Your task to perform on an android device: What's on the menu at Denny's? Image 0: 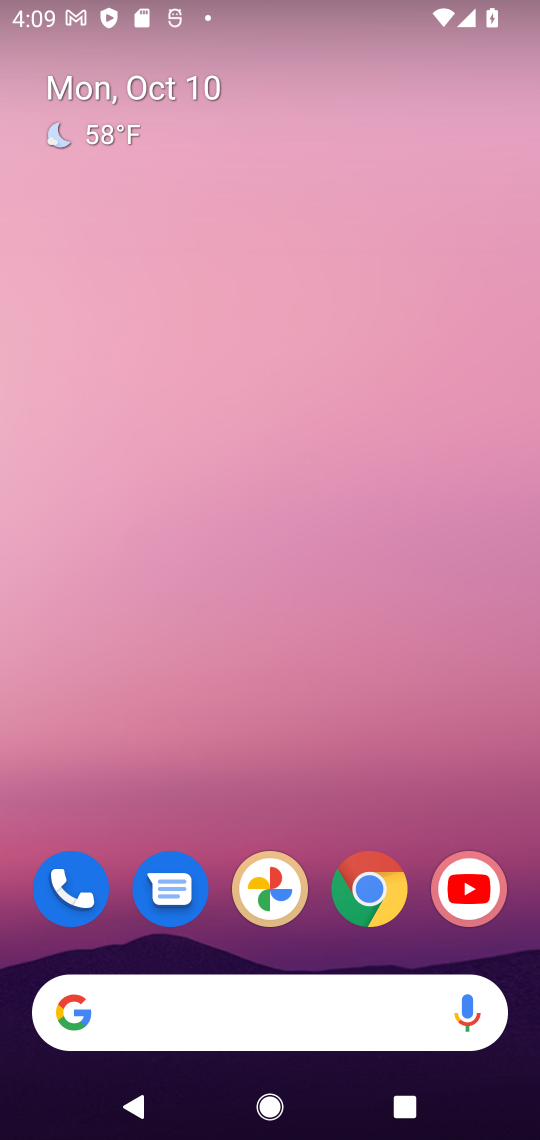
Step 0: click (368, 882)
Your task to perform on an android device: What's on the menu at Denny's? Image 1: 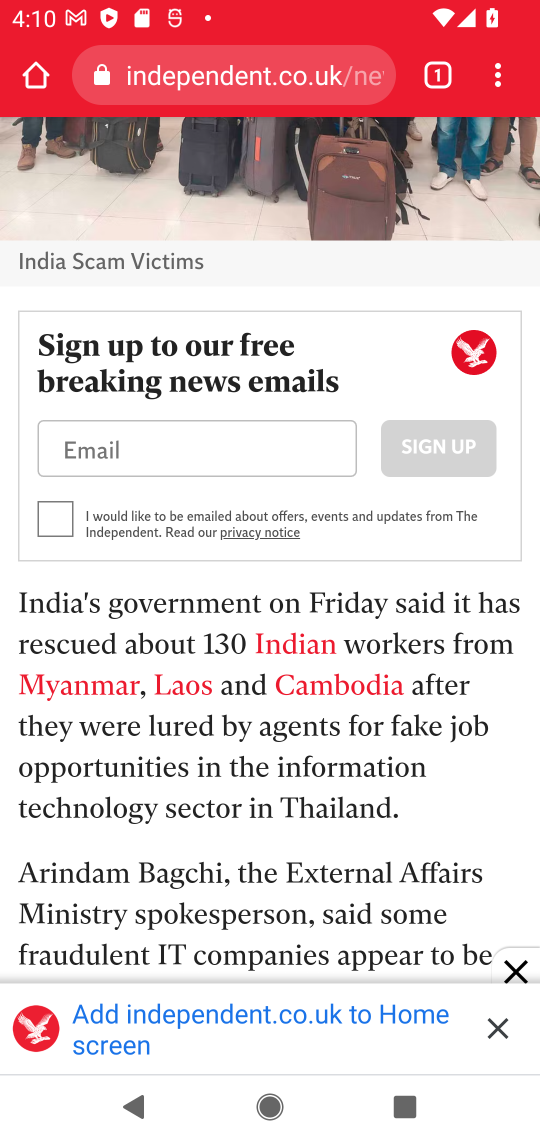
Step 1: click (260, 53)
Your task to perform on an android device: What's on the menu at Denny's? Image 2: 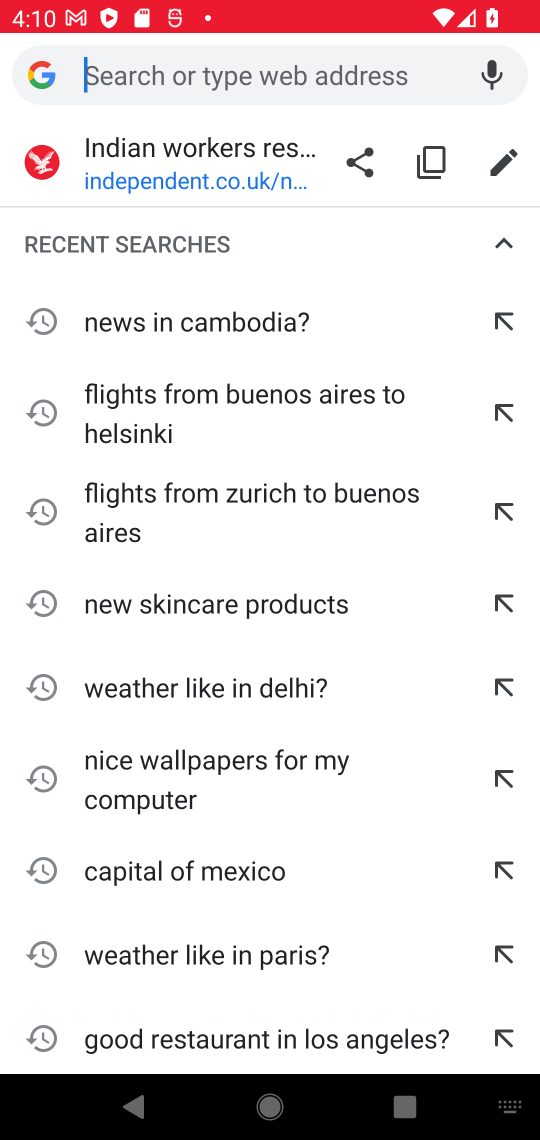
Step 2: type "menu at Denny's?"
Your task to perform on an android device: What's on the menu at Denny's? Image 3: 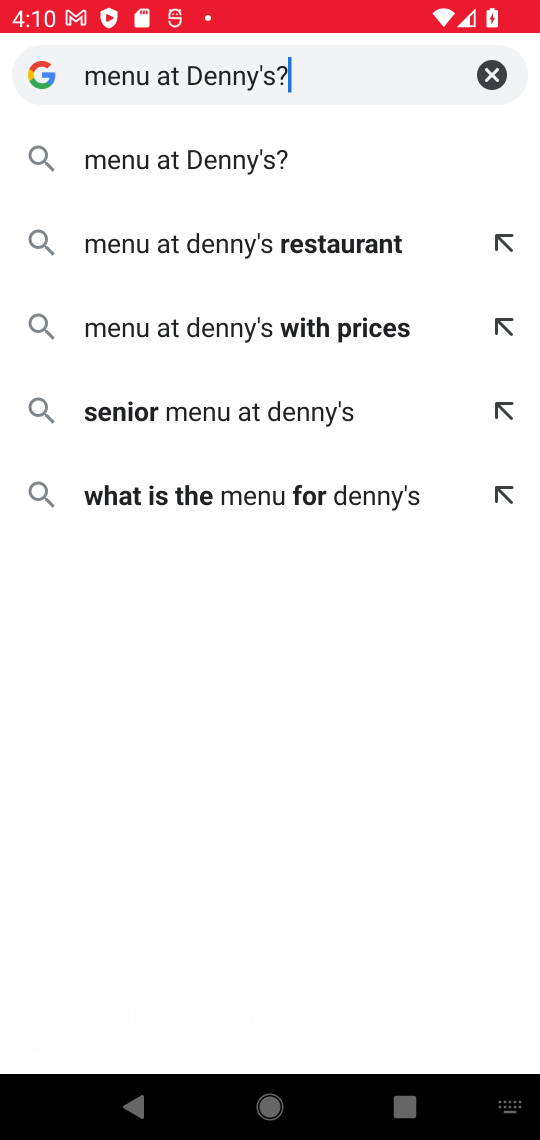
Step 3: click (101, 156)
Your task to perform on an android device: What's on the menu at Denny's? Image 4: 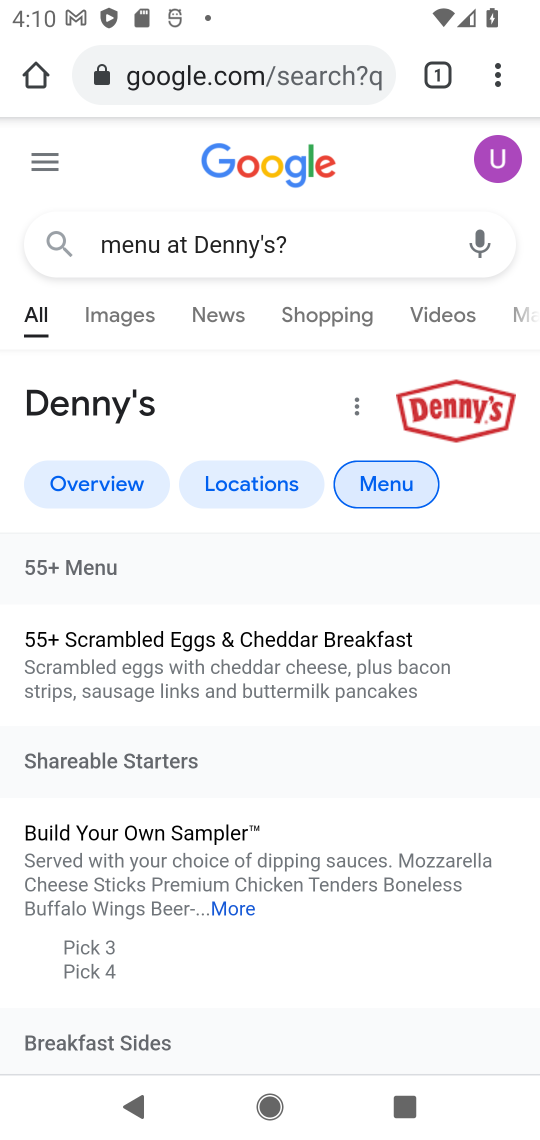
Step 4: drag from (343, 718) to (347, 490)
Your task to perform on an android device: What's on the menu at Denny's? Image 5: 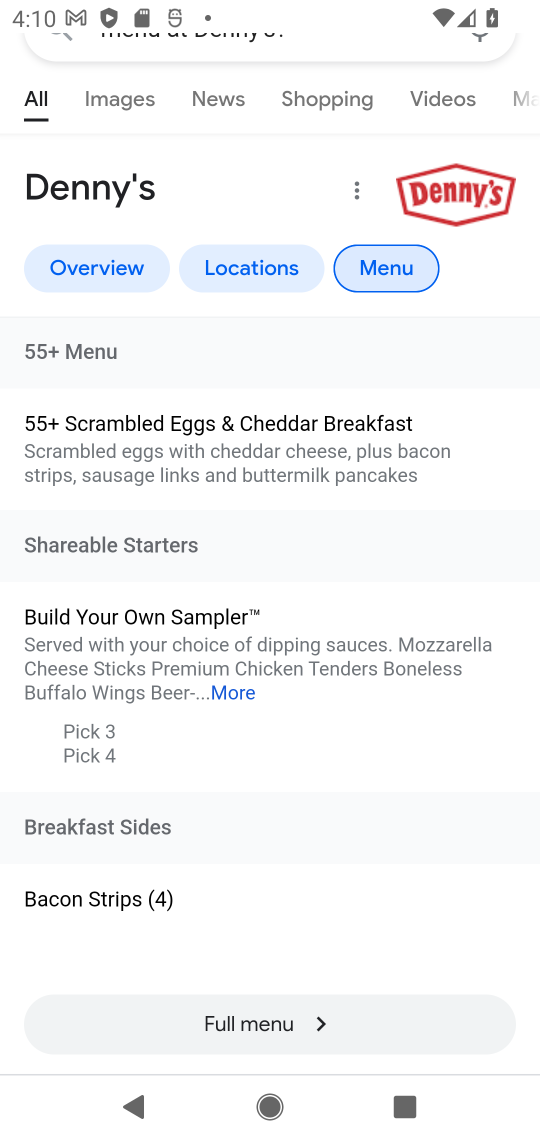
Step 5: click (369, 268)
Your task to perform on an android device: What's on the menu at Denny's? Image 6: 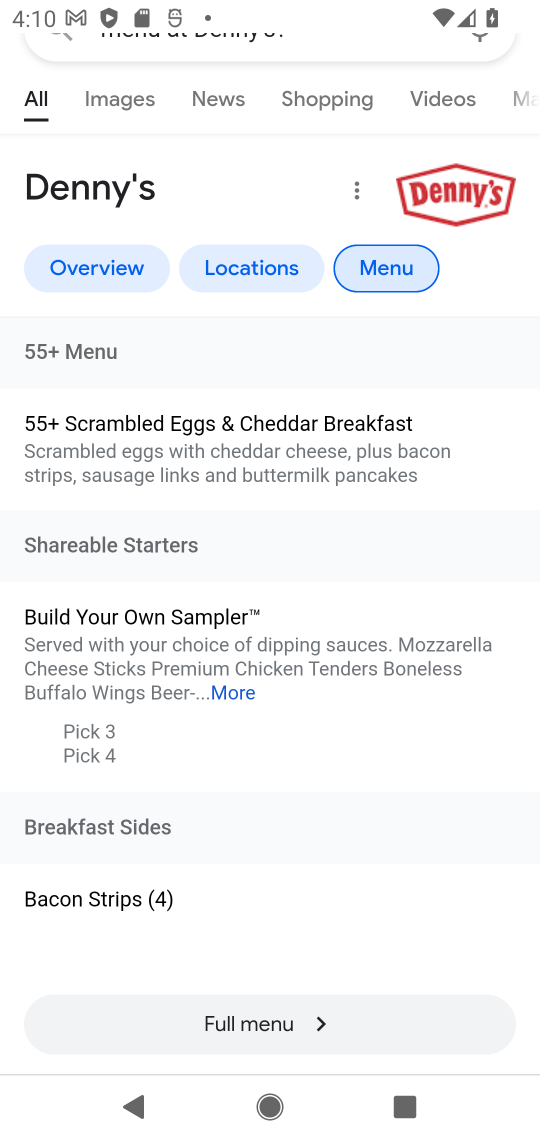
Step 6: click (384, 272)
Your task to perform on an android device: What's on the menu at Denny's? Image 7: 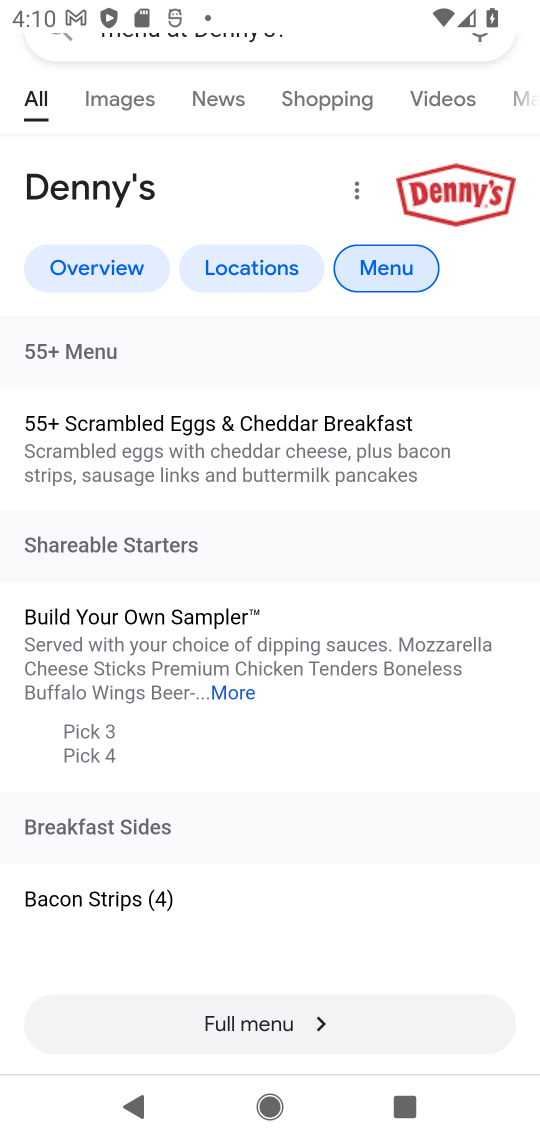
Step 7: drag from (312, 369) to (309, 529)
Your task to perform on an android device: What's on the menu at Denny's? Image 8: 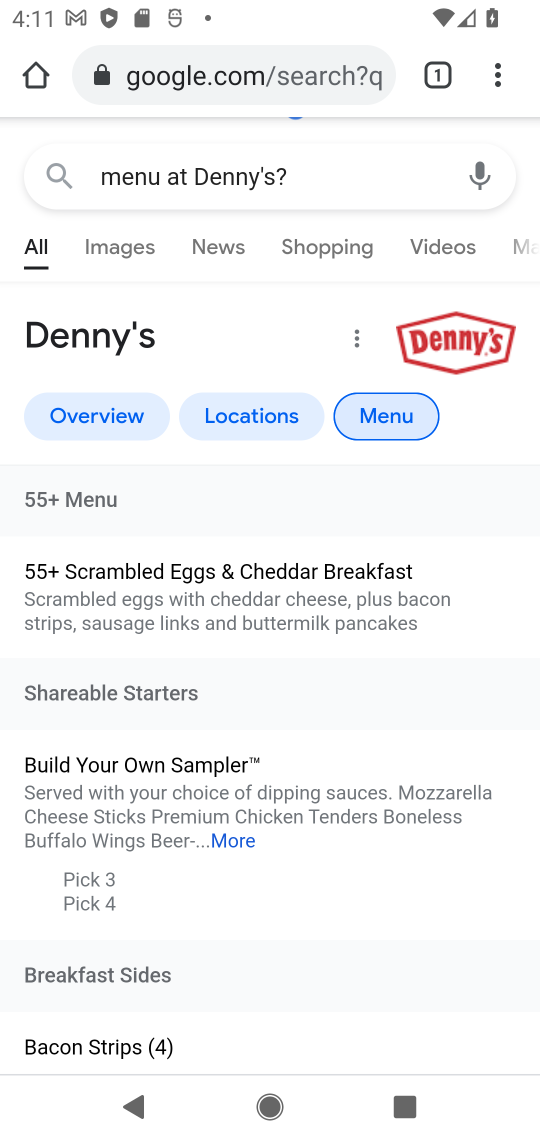
Step 8: click (62, 502)
Your task to perform on an android device: What's on the menu at Denny's? Image 9: 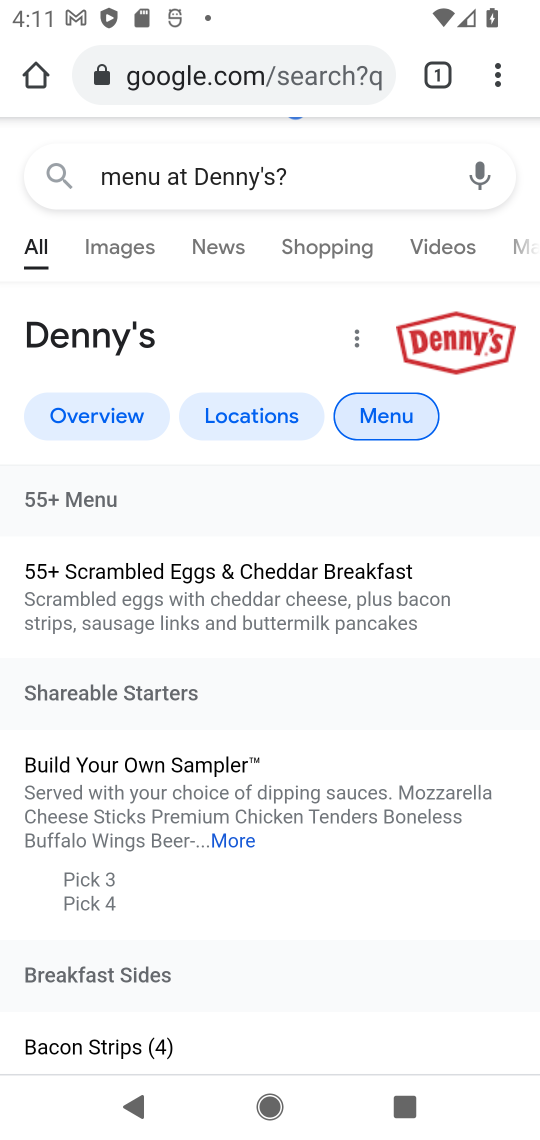
Step 9: click (27, 503)
Your task to perform on an android device: What's on the menu at Denny's? Image 10: 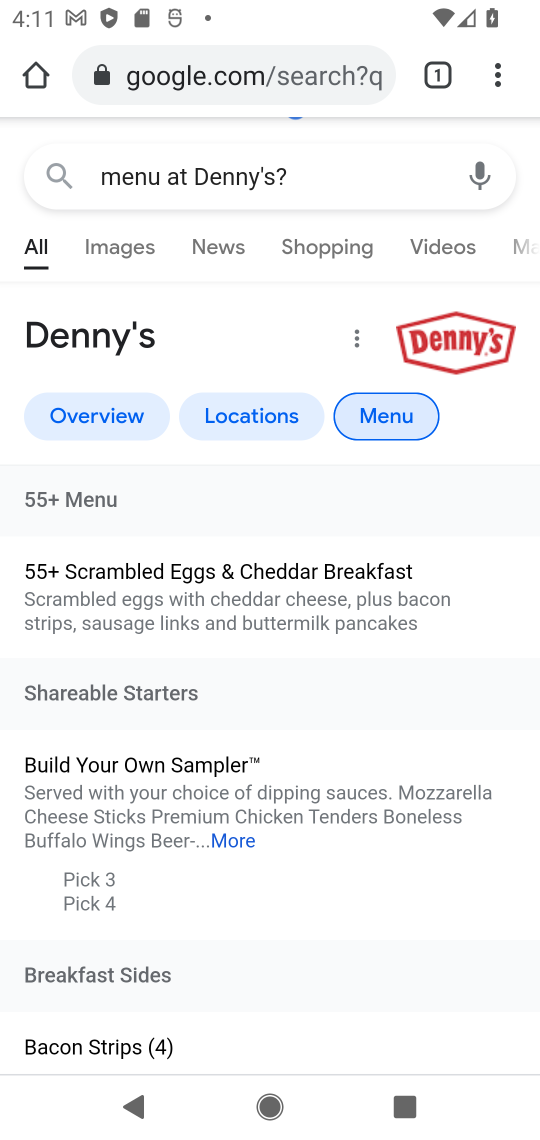
Step 10: click (387, 413)
Your task to perform on an android device: What's on the menu at Denny's? Image 11: 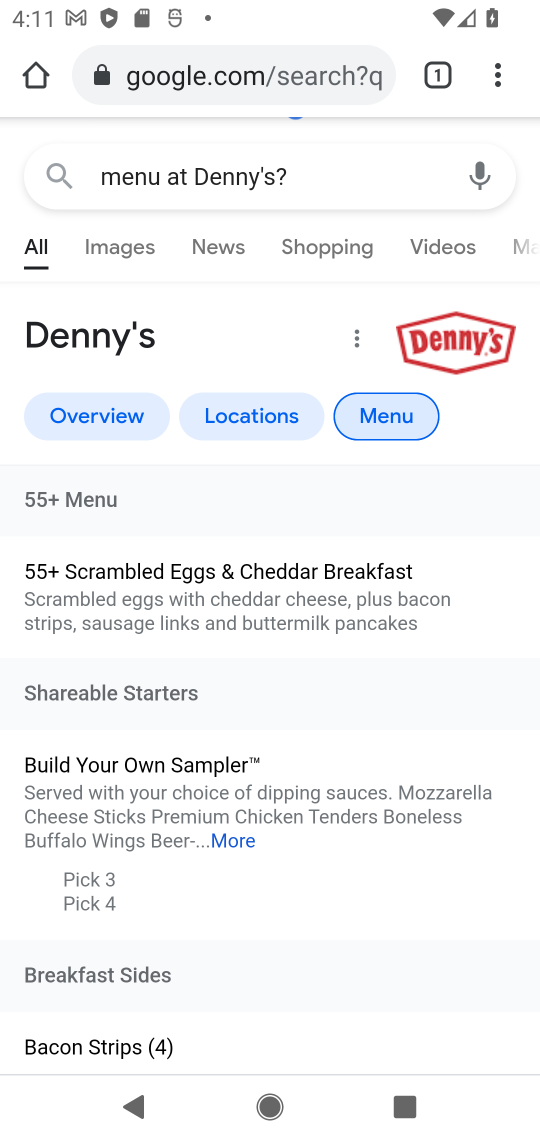
Step 11: drag from (321, 899) to (252, 281)
Your task to perform on an android device: What's on the menu at Denny's? Image 12: 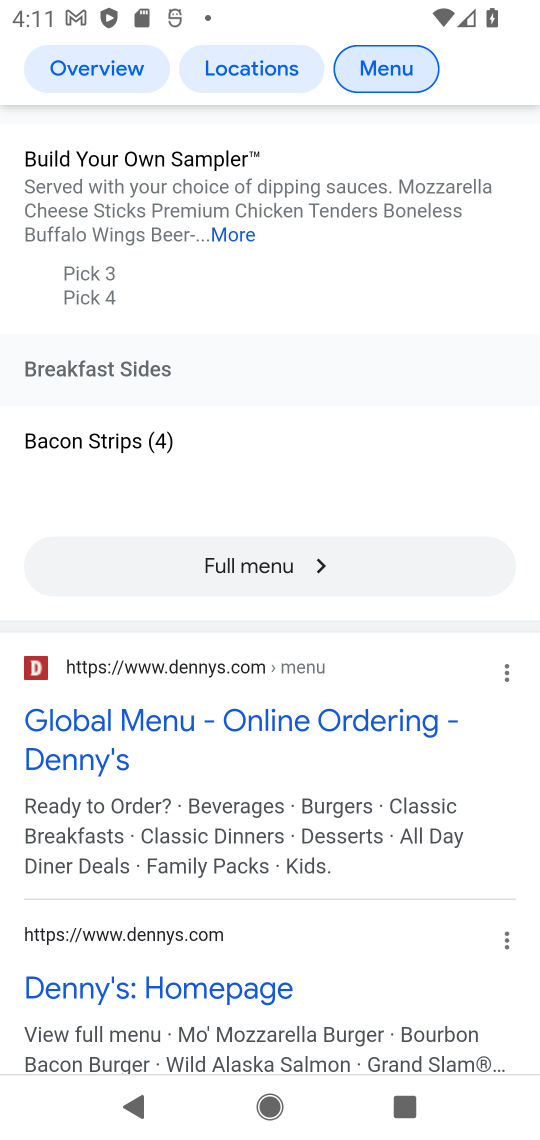
Step 12: click (105, 1001)
Your task to perform on an android device: What's on the menu at Denny's? Image 13: 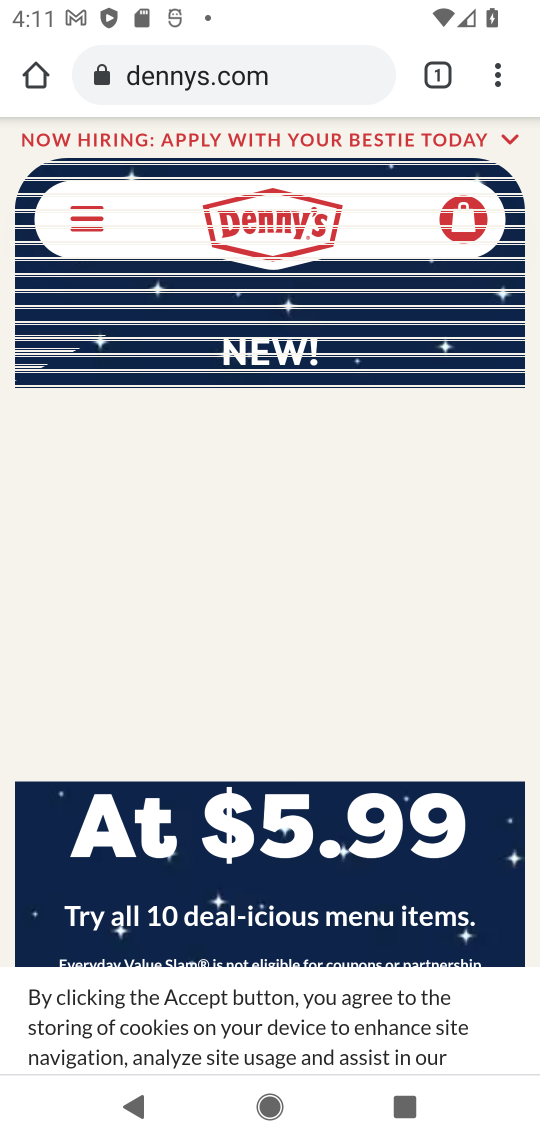
Step 13: drag from (376, 869) to (287, 297)
Your task to perform on an android device: What's on the menu at Denny's? Image 14: 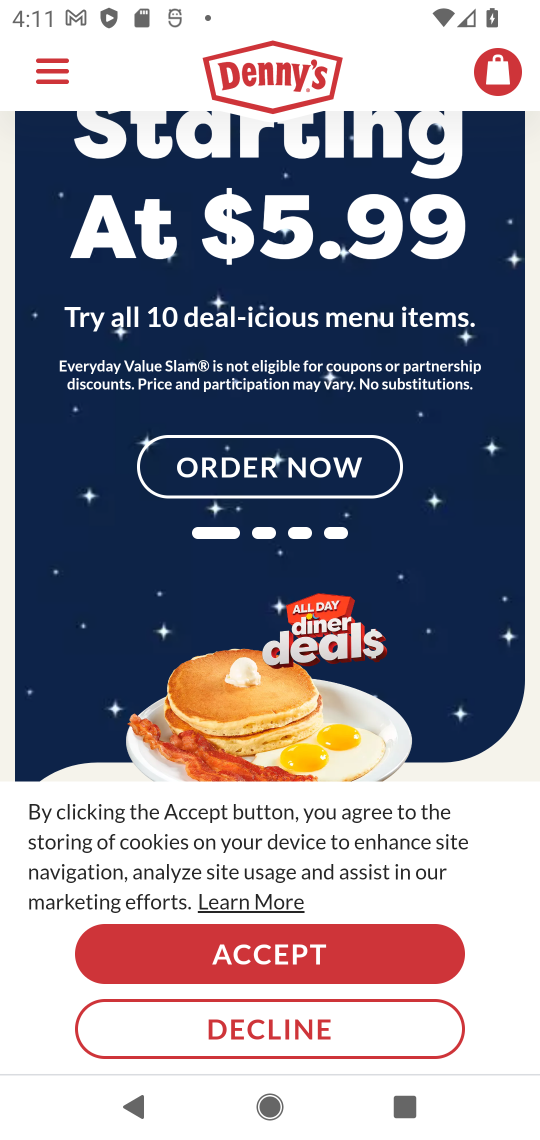
Step 14: click (272, 961)
Your task to perform on an android device: What's on the menu at Denny's? Image 15: 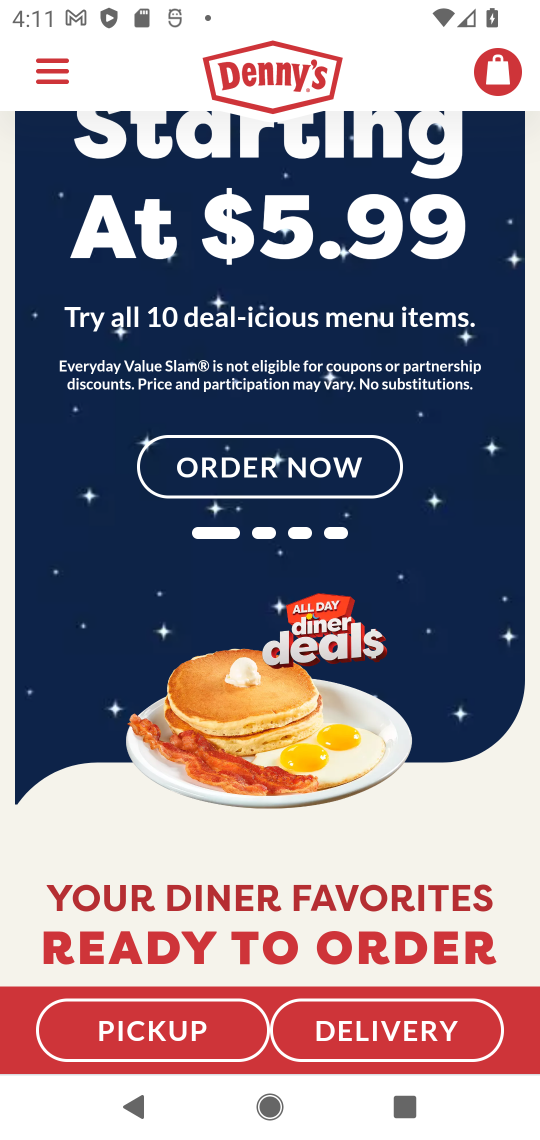
Step 15: drag from (398, 918) to (297, 162)
Your task to perform on an android device: What's on the menu at Denny's? Image 16: 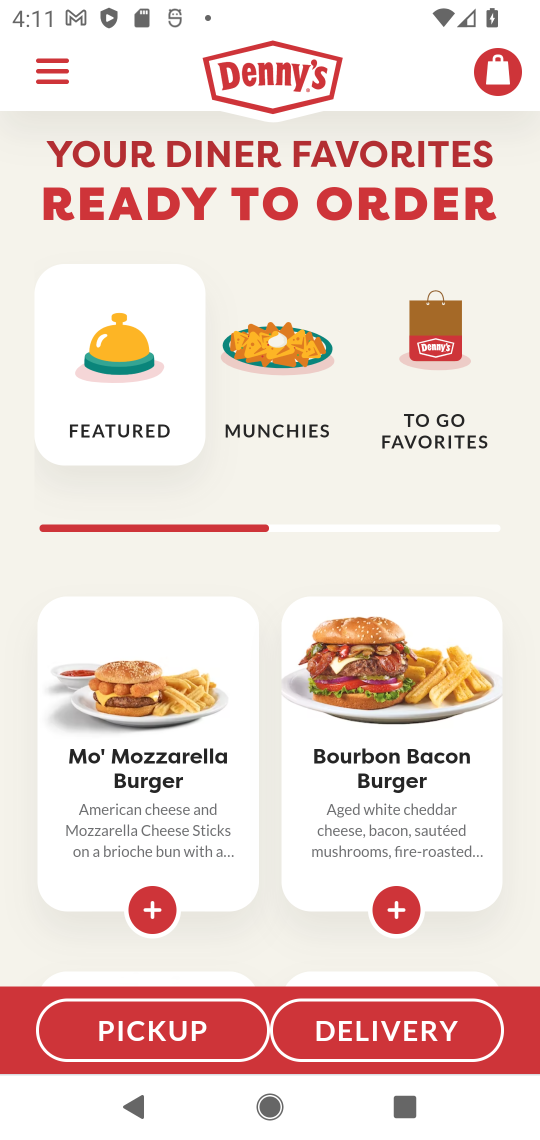
Step 16: drag from (276, 939) to (303, 170)
Your task to perform on an android device: What's on the menu at Denny's? Image 17: 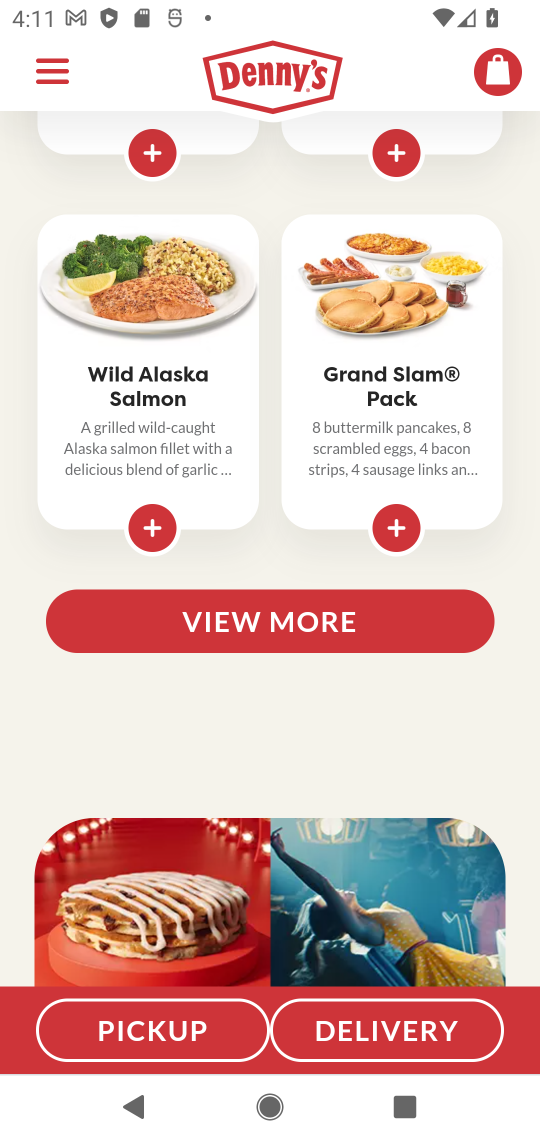
Step 17: click (253, 624)
Your task to perform on an android device: What's on the menu at Denny's? Image 18: 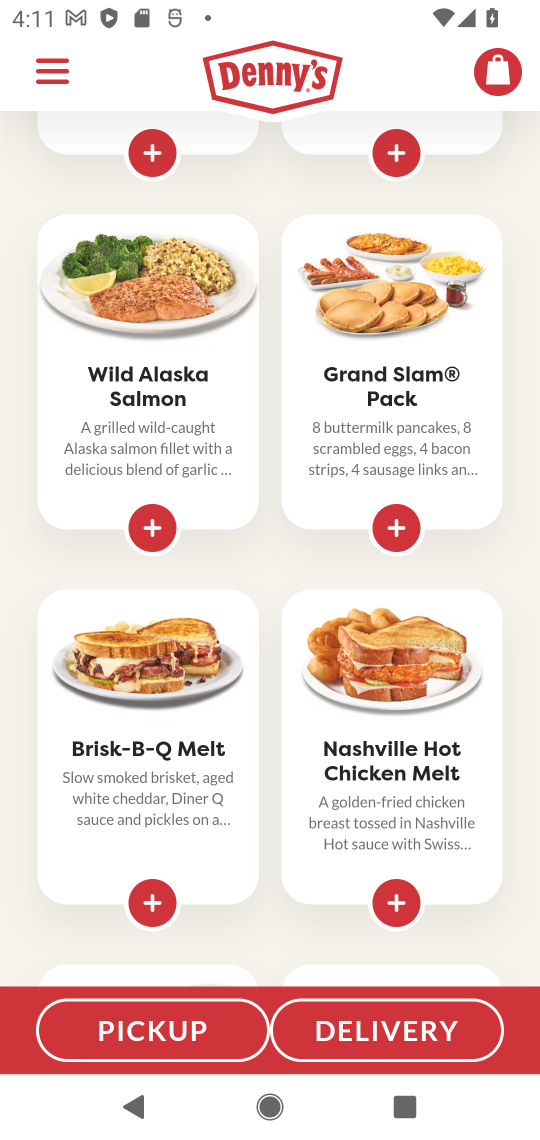
Step 18: task complete